Your task to perform on an android device: Open maps Image 0: 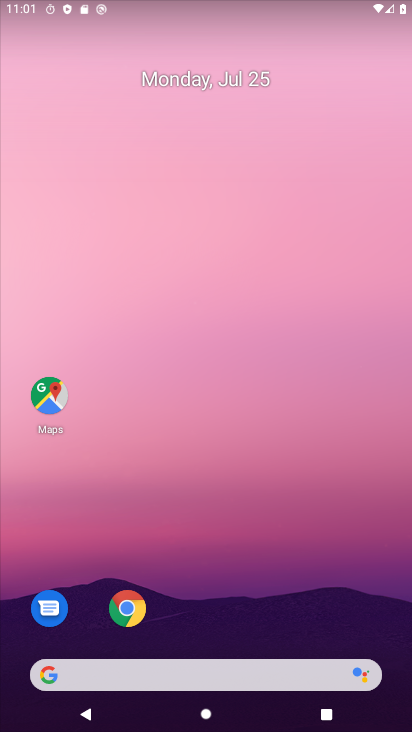
Step 0: drag from (202, 606) to (240, 17)
Your task to perform on an android device: Open maps Image 1: 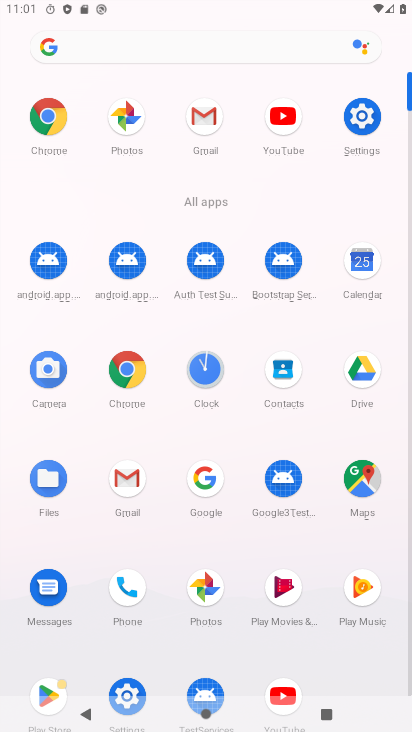
Step 1: click (365, 481)
Your task to perform on an android device: Open maps Image 2: 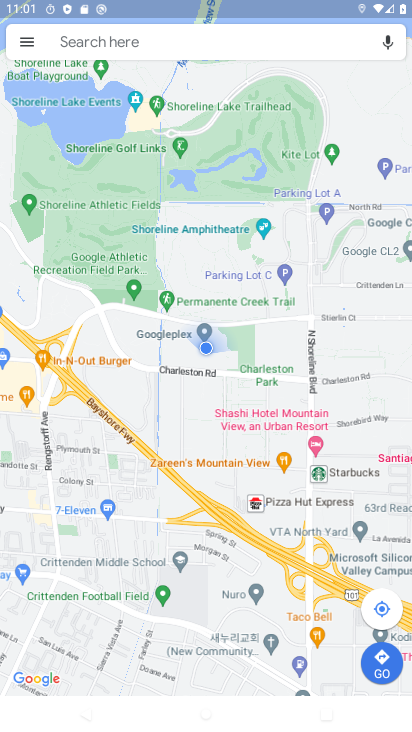
Step 2: task complete